Your task to perform on an android device: Show me popular videos on Youtube Image 0: 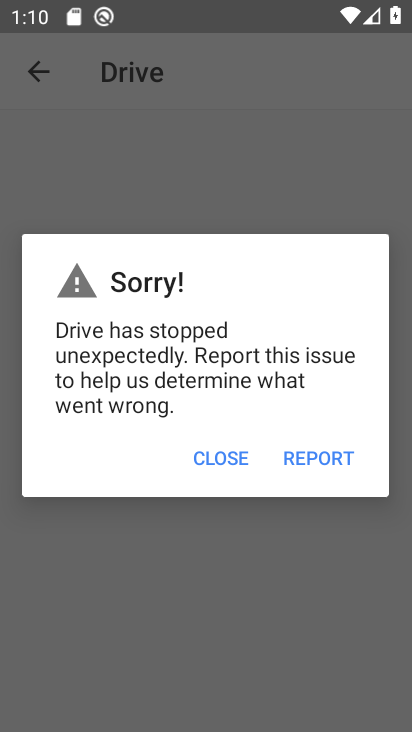
Step 0: press home button
Your task to perform on an android device: Show me popular videos on Youtube Image 1: 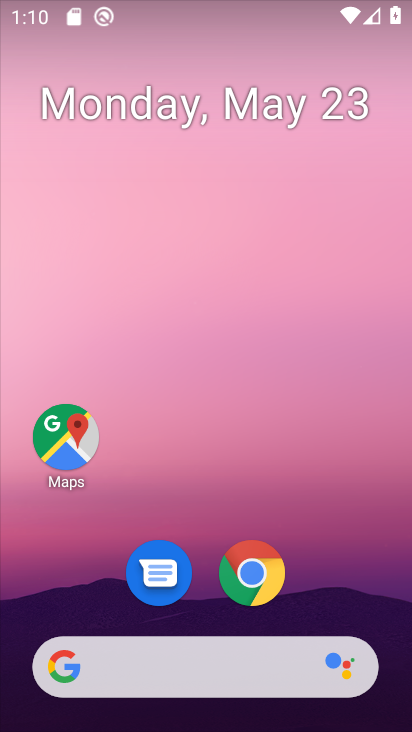
Step 1: drag from (319, 600) to (237, 72)
Your task to perform on an android device: Show me popular videos on Youtube Image 2: 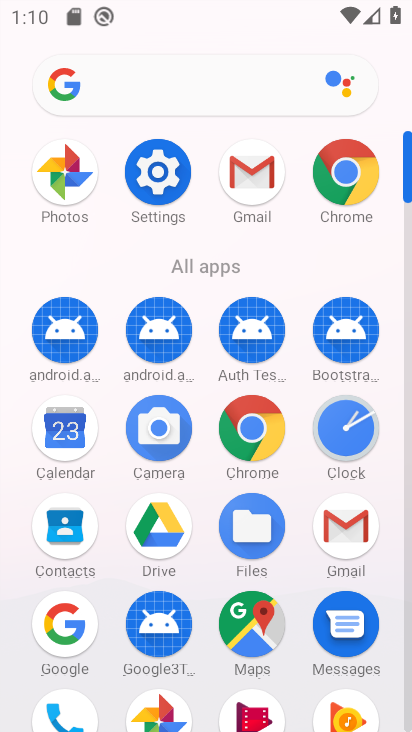
Step 2: drag from (300, 572) to (289, 250)
Your task to perform on an android device: Show me popular videos on Youtube Image 3: 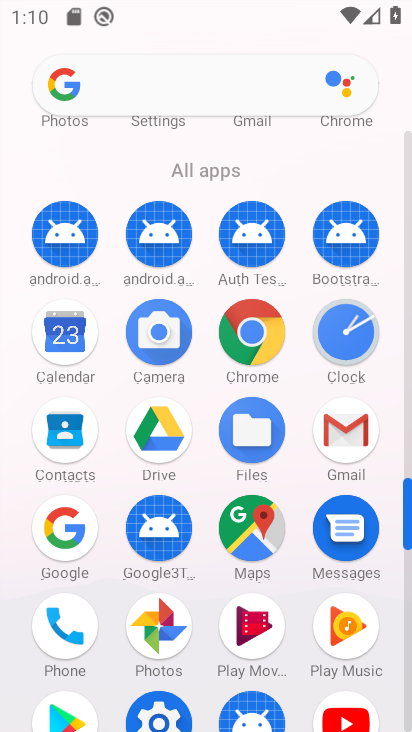
Step 3: click (348, 710)
Your task to perform on an android device: Show me popular videos on Youtube Image 4: 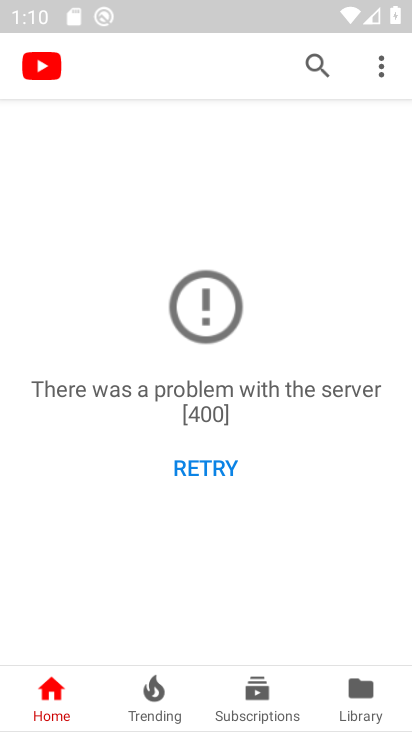
Step 4: click (315, 52)
Your task to perform on an android device: Show me popular videos on Youtube Image 5: 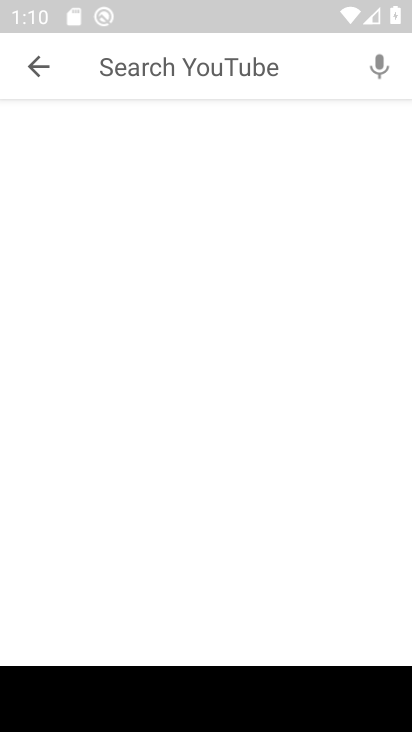
Step 5: type "popular videos"
Your task to perform on an android device: Show me popular videos on Youtube Image 6: 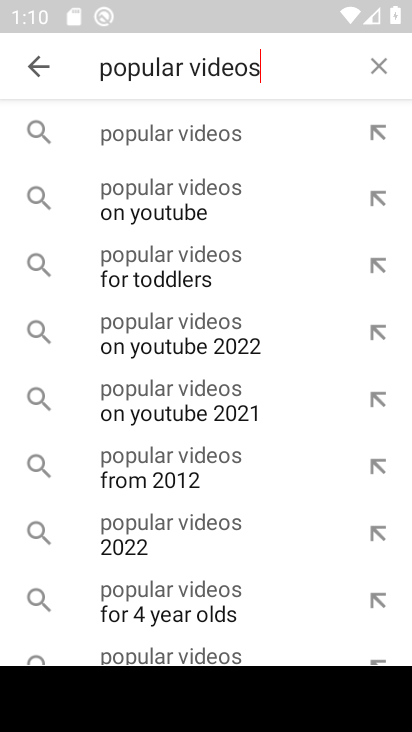
Step 6: click (204, 201)
Your task to perform on an android device: Show me popular videos on Youtube Image 7: 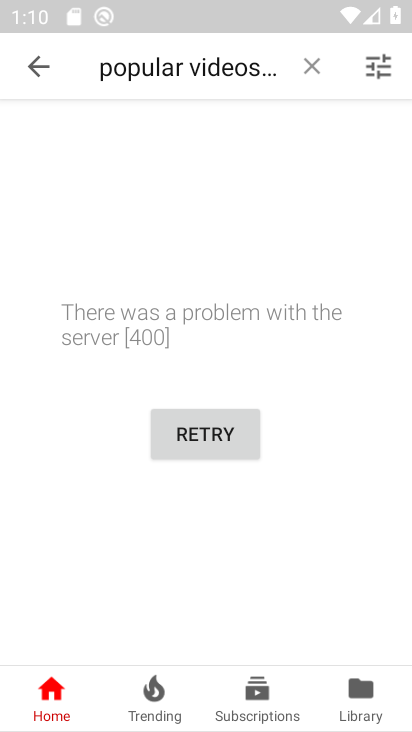
Step 7: click (216, 445)
Your task to perform on an android device: Show me popular videos on Youtube Image 8: 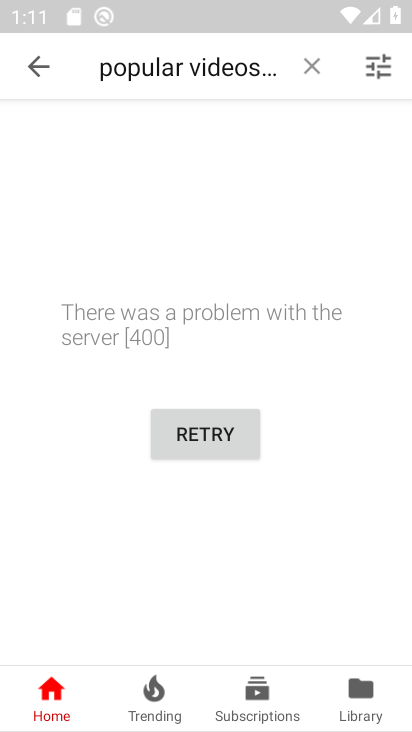
Step 8: task complete